Your task to perform on an android device: Clear all items from cart on newegg. Search for razer nari on newegg, select the first entry, and add it to the cart. Image 0: 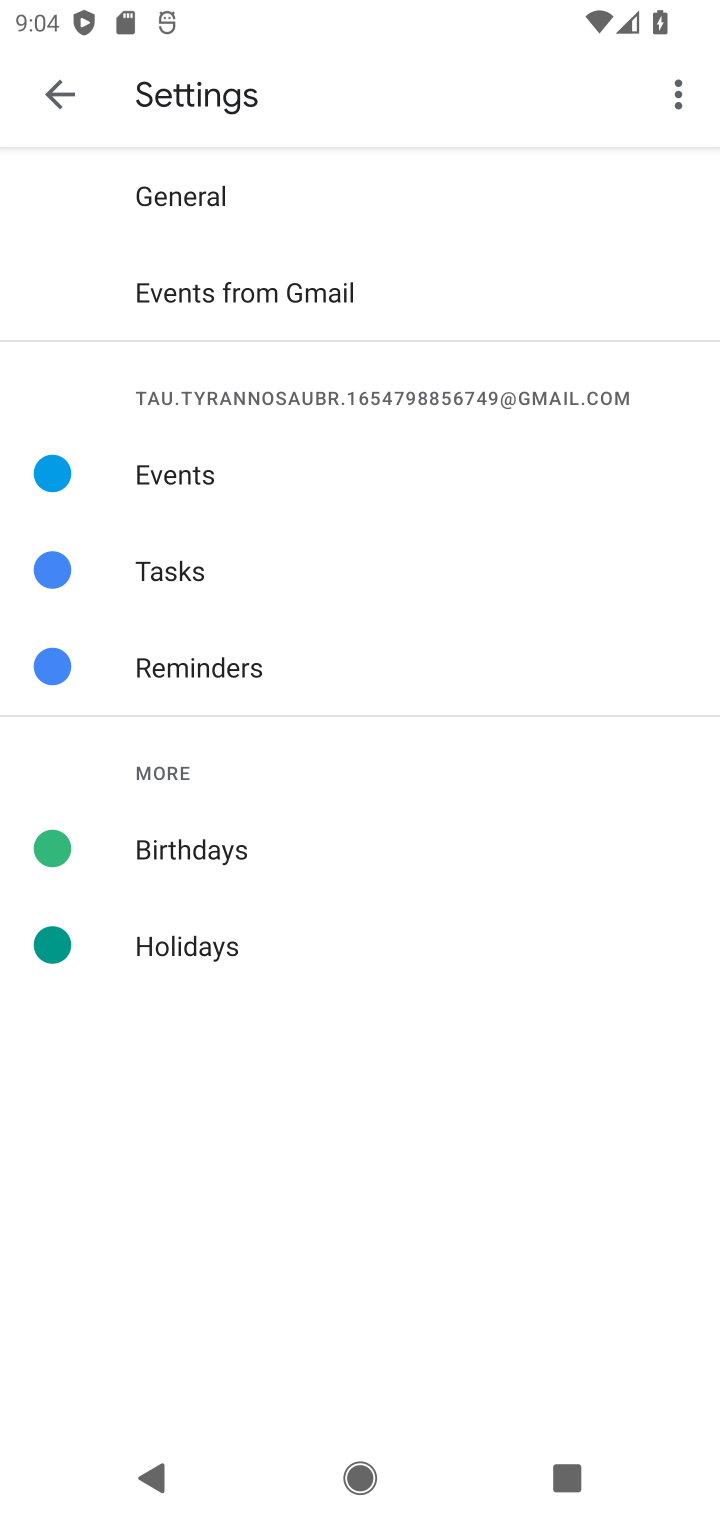
Step 0: press home button
Your task to perform on an android device: Clear all items from cart on newegg. Search for razer nari on newegg, select the first entry, and add it to the cart. Image 1: 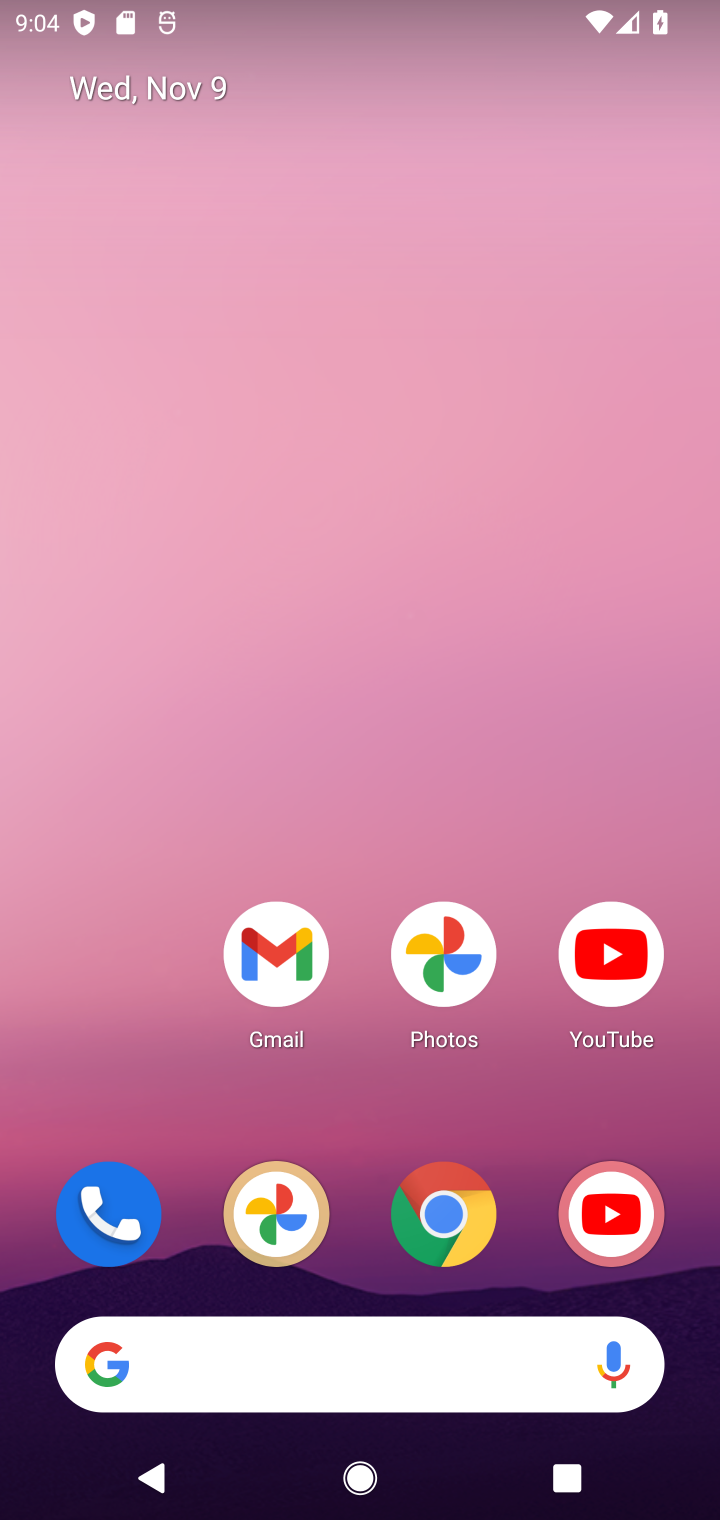
Step 1: drag from (373, 661) to (376, 215)
Your task to perform on an android device: Clear all items from cart on newegg. Search for razer nari on newegg, select the first entry, and add it to the cart. Image 2: 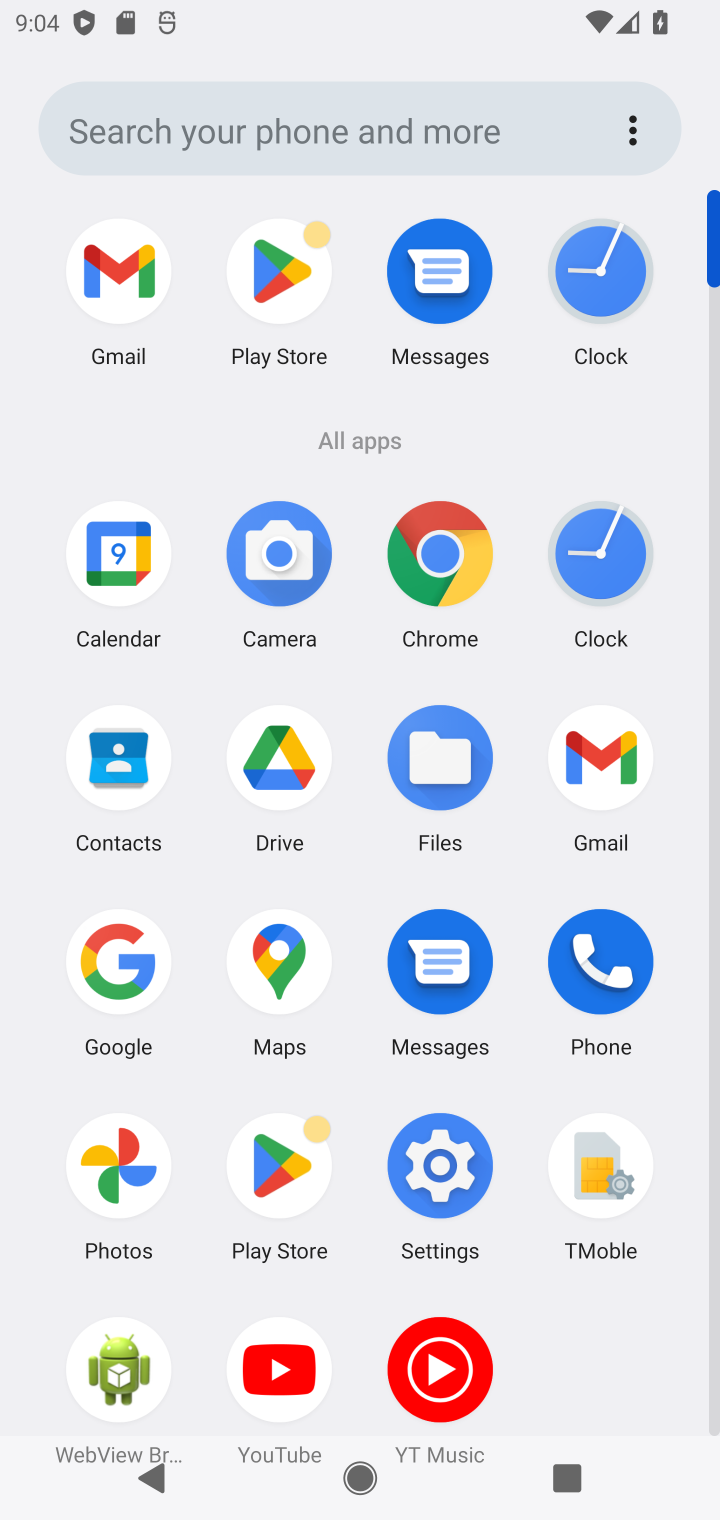
Step 2: click (435, 550)
Your task to perform on an android device: Clear all items from cart on newegg. Search for razer nari on newegg, select the first entry, and add it to the cart. Image 3: 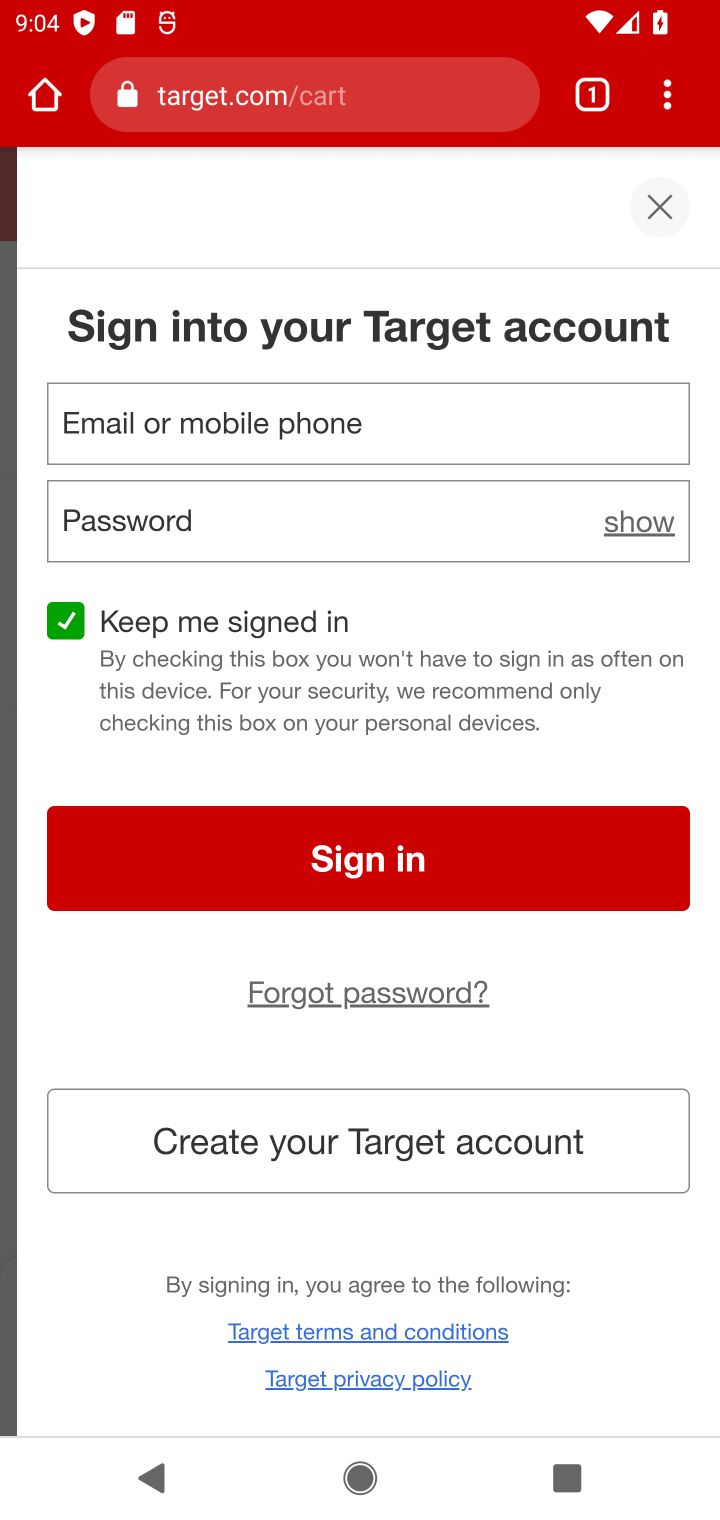
Step 3: click (337, 104)
Your task to perform on an android device: Clear all items from cart on newegg. Search for razer nari on newegg, select the first entry, and add it to the cart. Image 4: 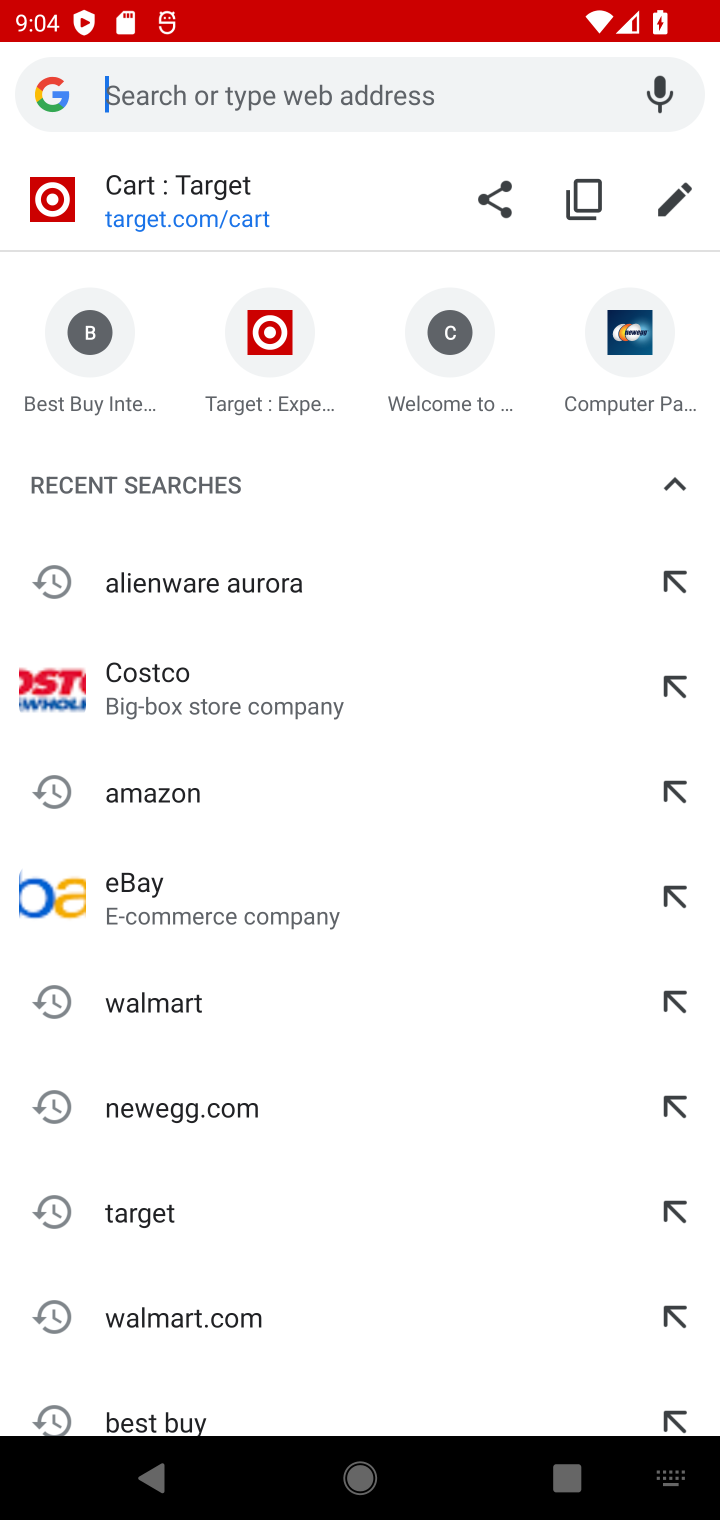
Step 4: type "newegg.com"
Your task to perform on an android device: Clear all items from cart on newegg. Search for razer nari on newegg, select the first entry, and add it to the cart. Image 5: 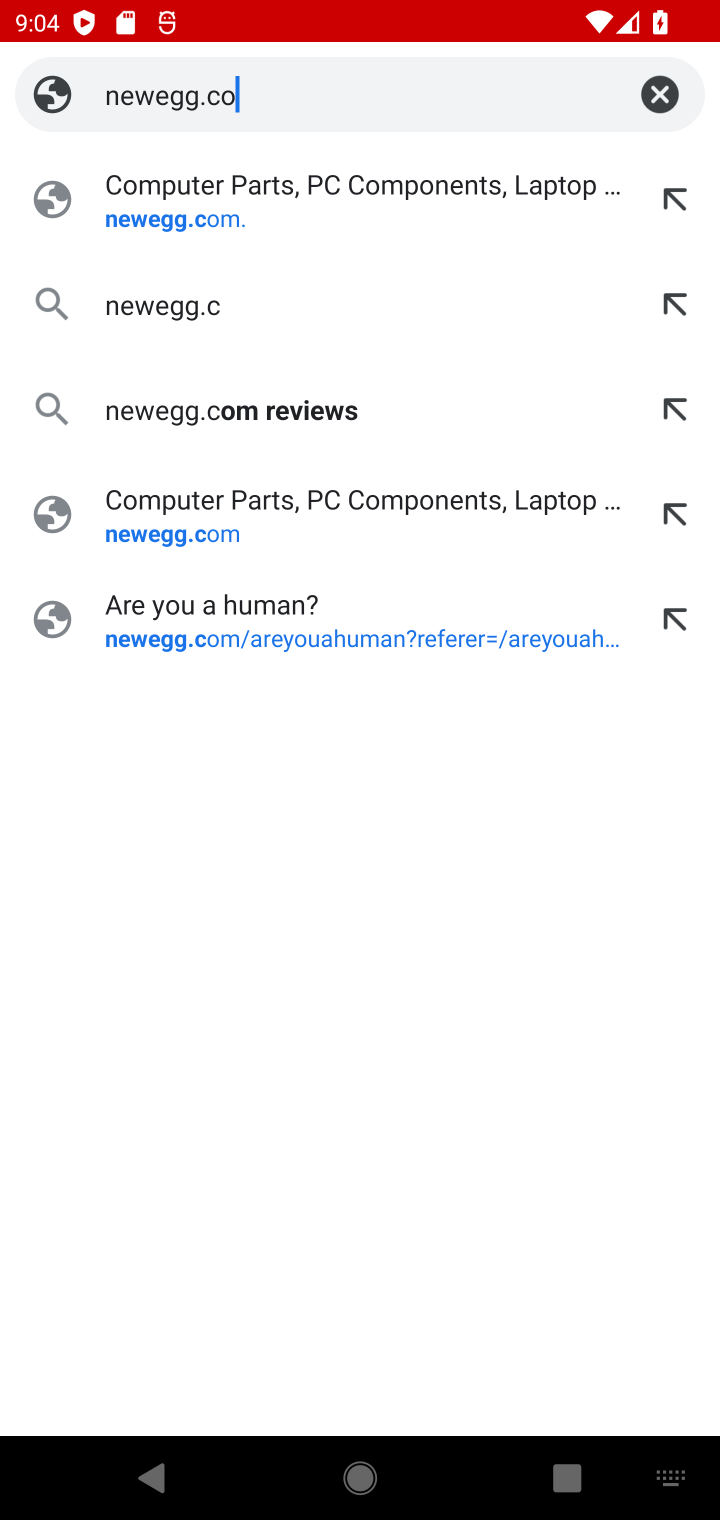
Step 5: press enter
Your task to perform on an android device: Clear all items from cart on newegg. Search for razer nari on newegg, select the first entry, and add it to the cart. Image 6: 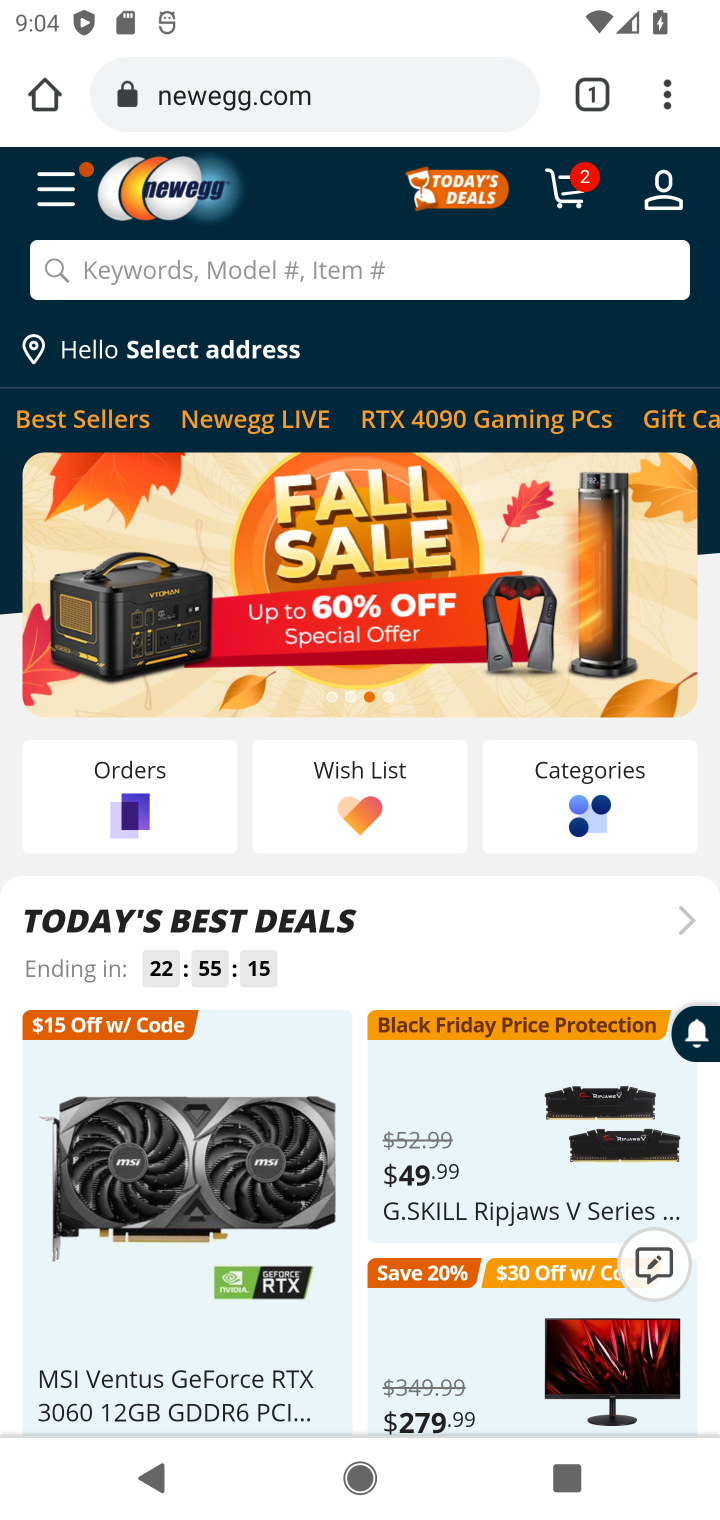
Step 6: click (593, 185)
Your task to perform on an android device: Clear all items from cart on newegg. Search for razer nari on newegg, select the first entry, and add it to the cart. Image 7: 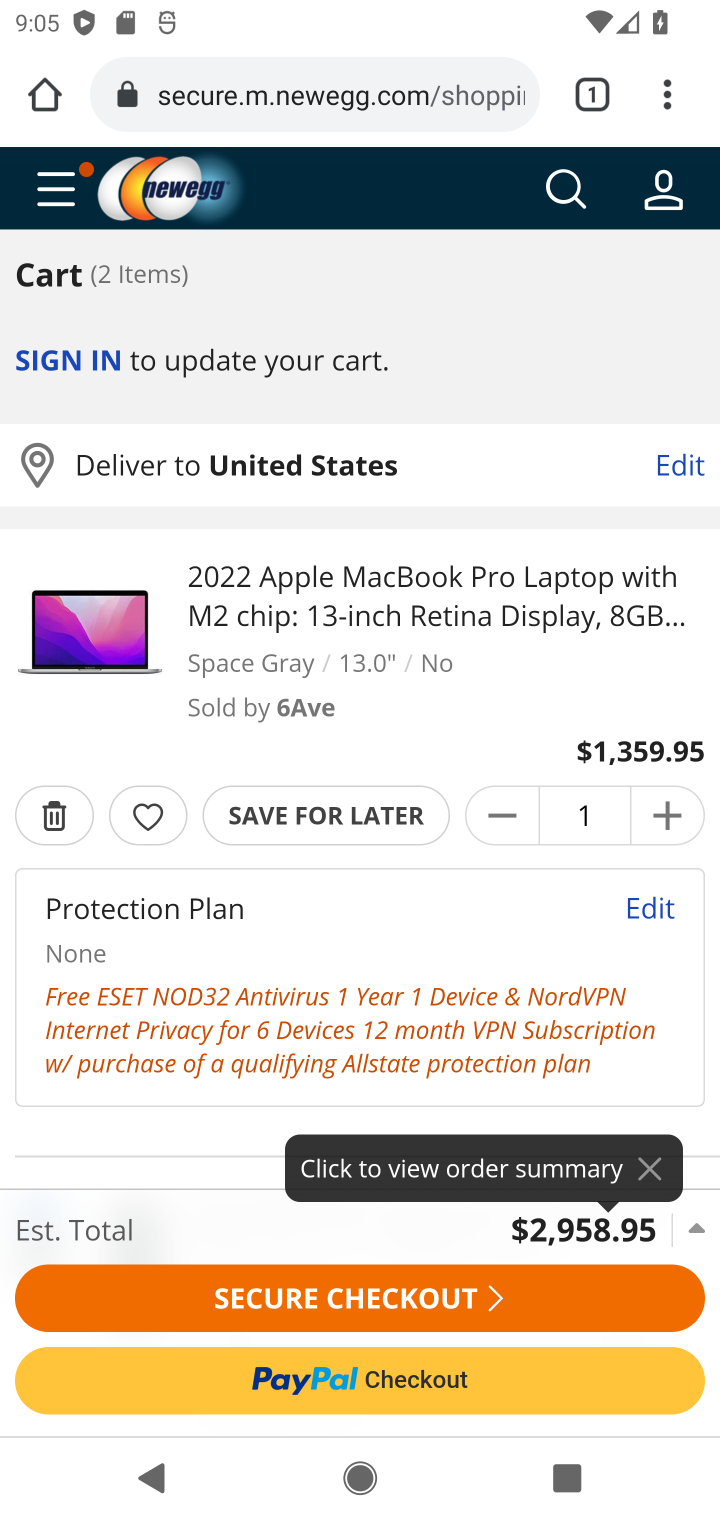
Step 7: click (38, 807)
Your task to perform on an android device: Clear all items from cart on newegg. Search for razer nari on newegg, select the first entry, and add it to the cart. Image 8: 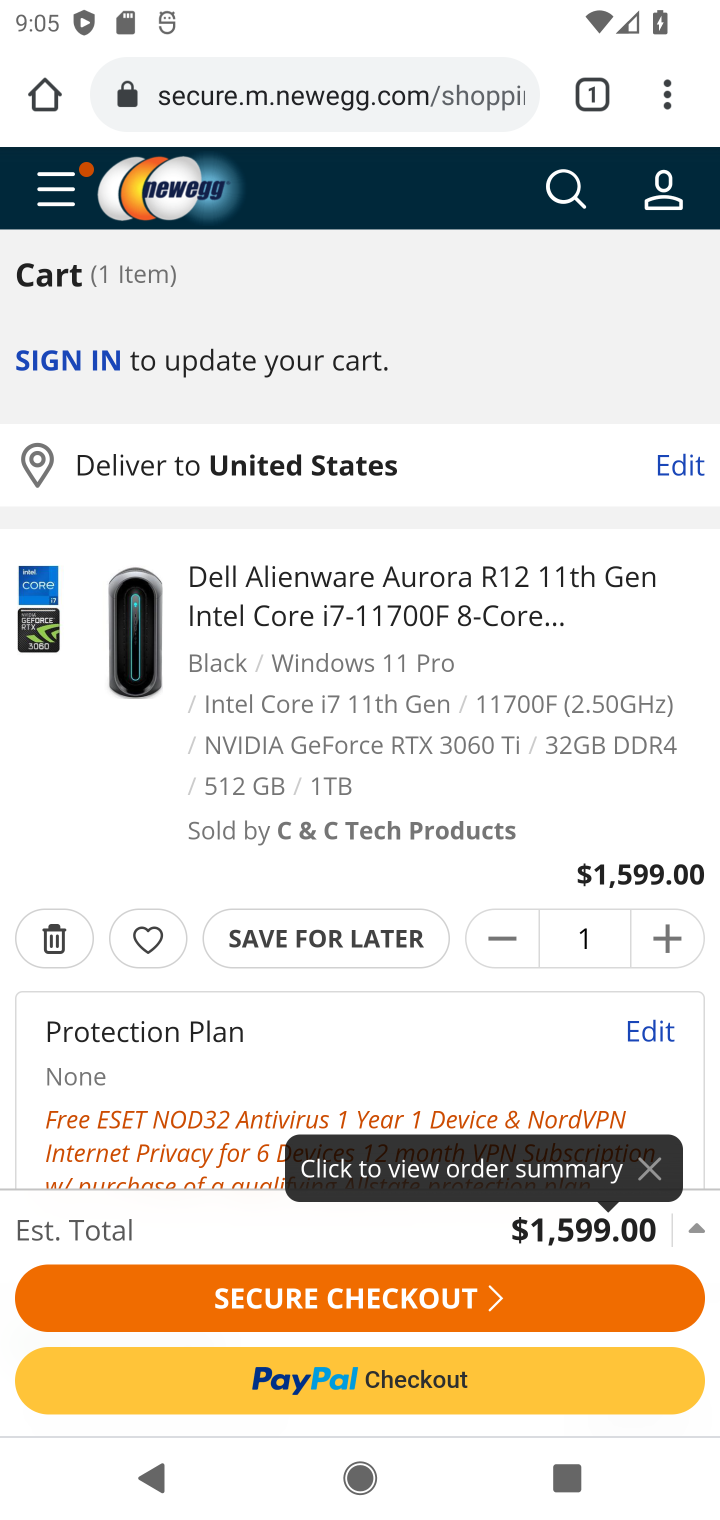
Step 8: click (62, 923)
Your task to perform on an android device: Clear all items from cart on newegg. Search for razer nari on newegg, select the first entry, and add it to the cart. Image 9: 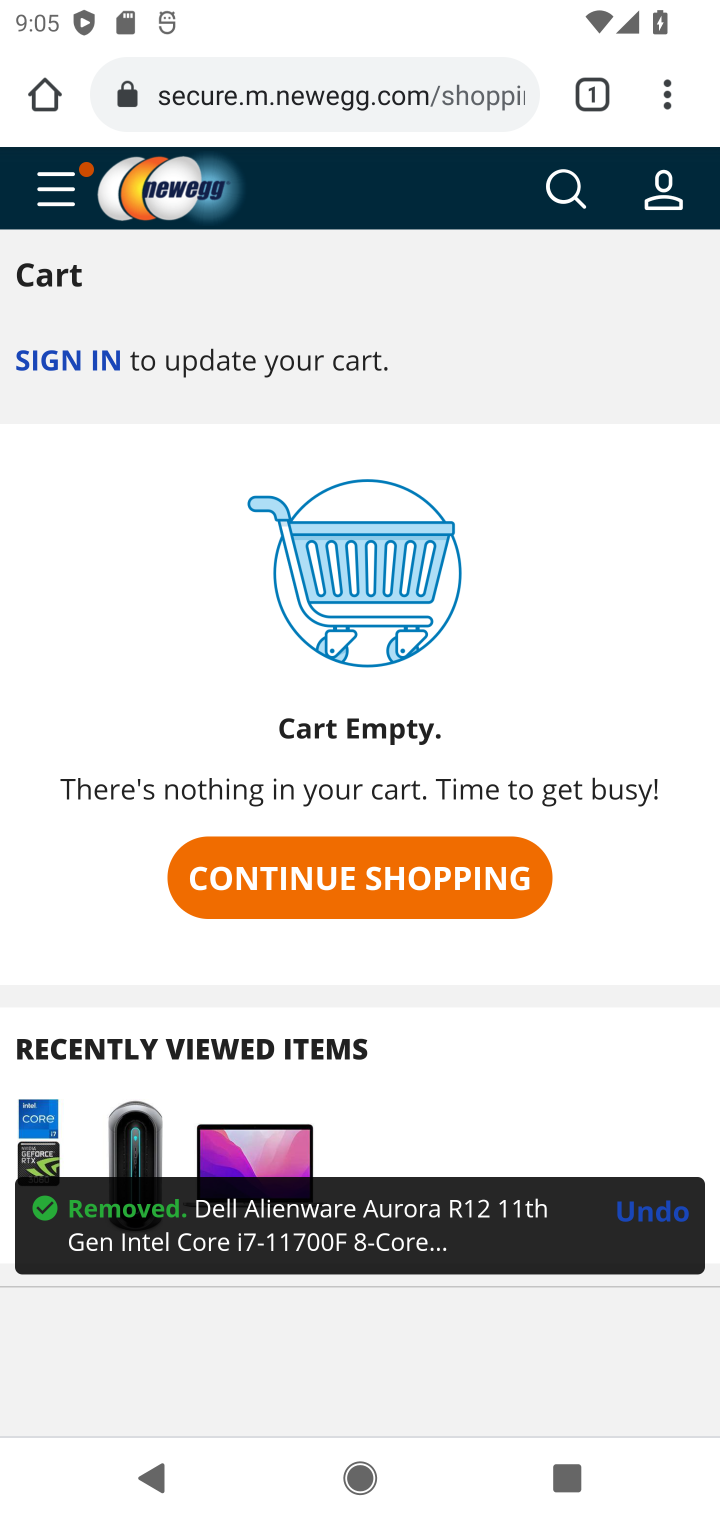
Step 9: click (558, 198)
Your task to perform on an android device: Clear all items from cart on newegg. Search for razer nari on newegg, select the first entry, and add it to the cart. Image 10: 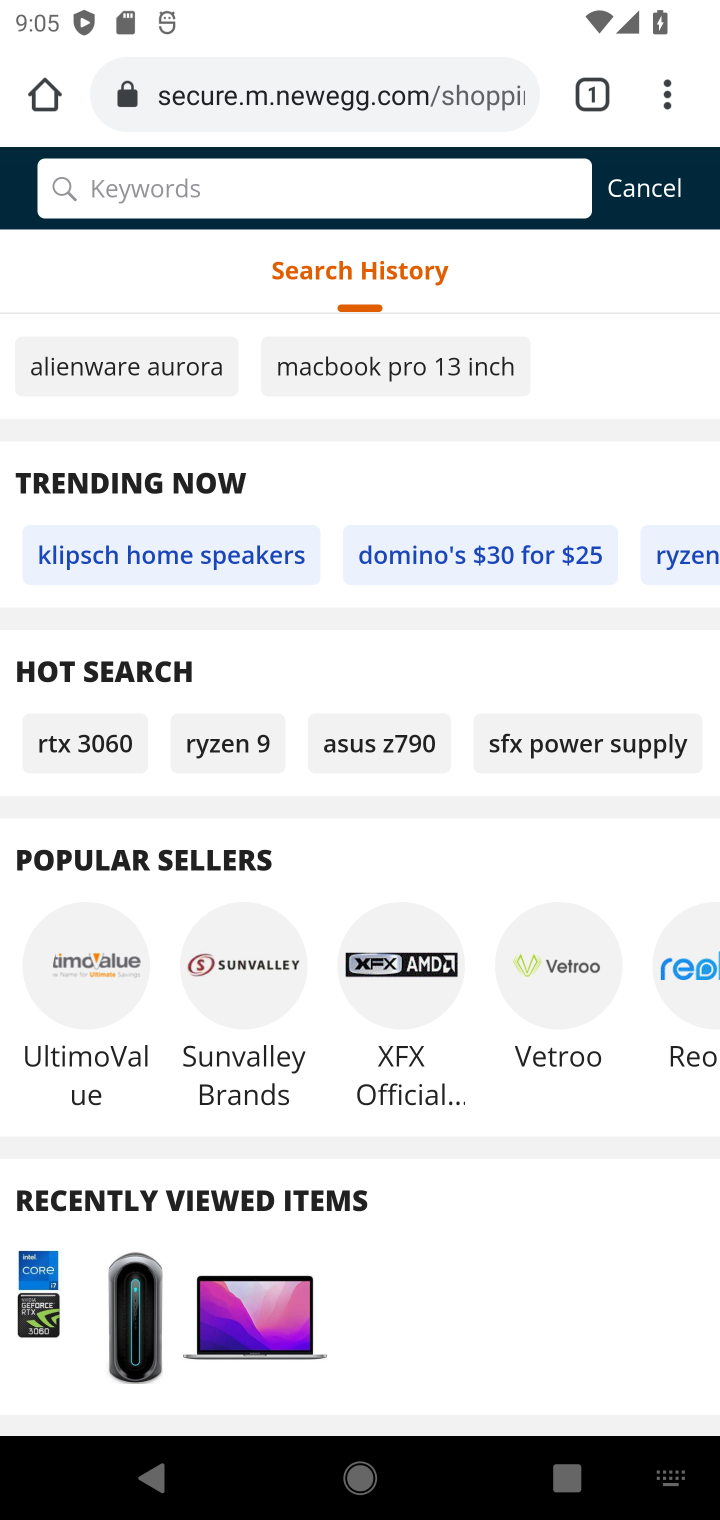
Step 10: type "razer nari"
Your task to perform on an android device: Clear all items from cart on newegg. Search for razer nari on newegg, select the first entry, and add it to the cart. Image 11: 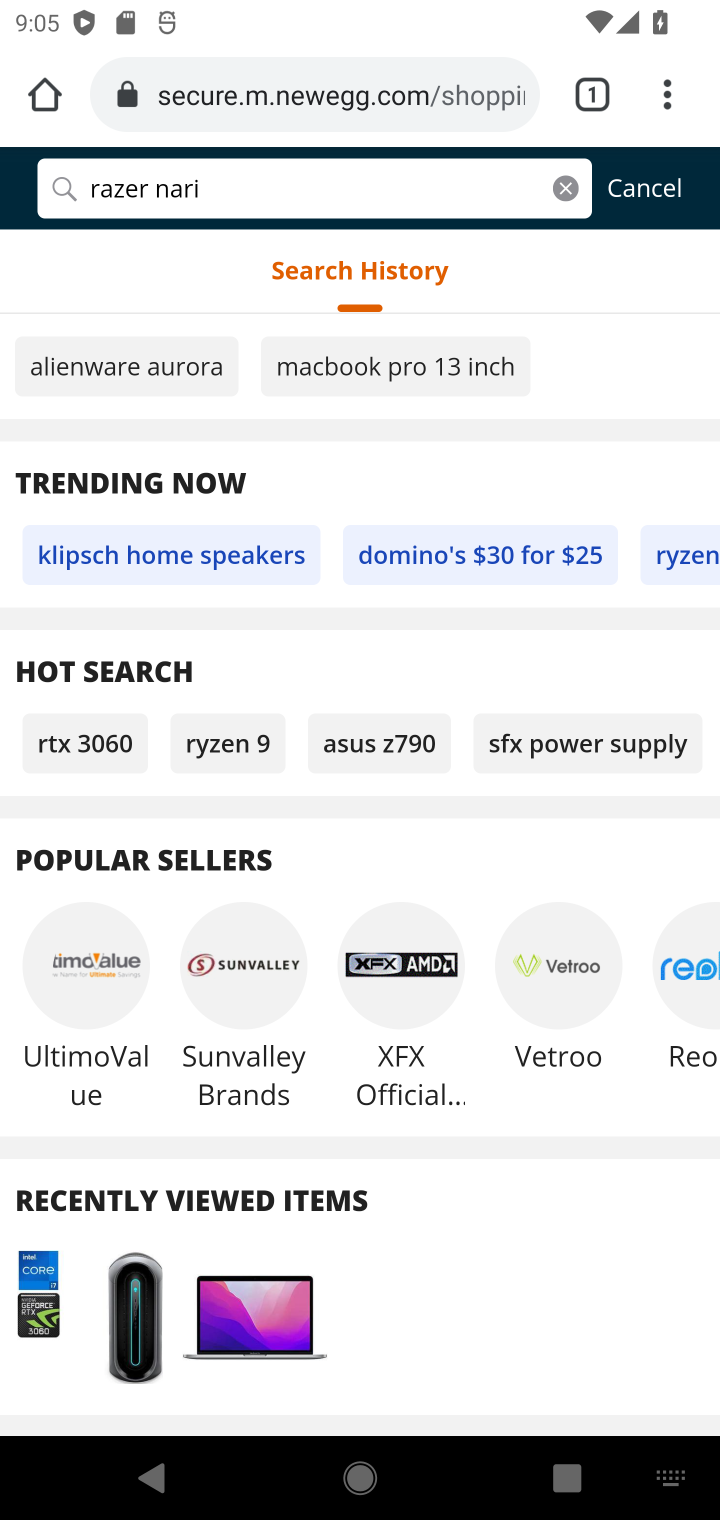
Step 11: press enter
Your task to perform on an android device: Clear all items from cart on newegg. Search for razer nari on newegg, select the first entry, and add it to the cart. Image 12: 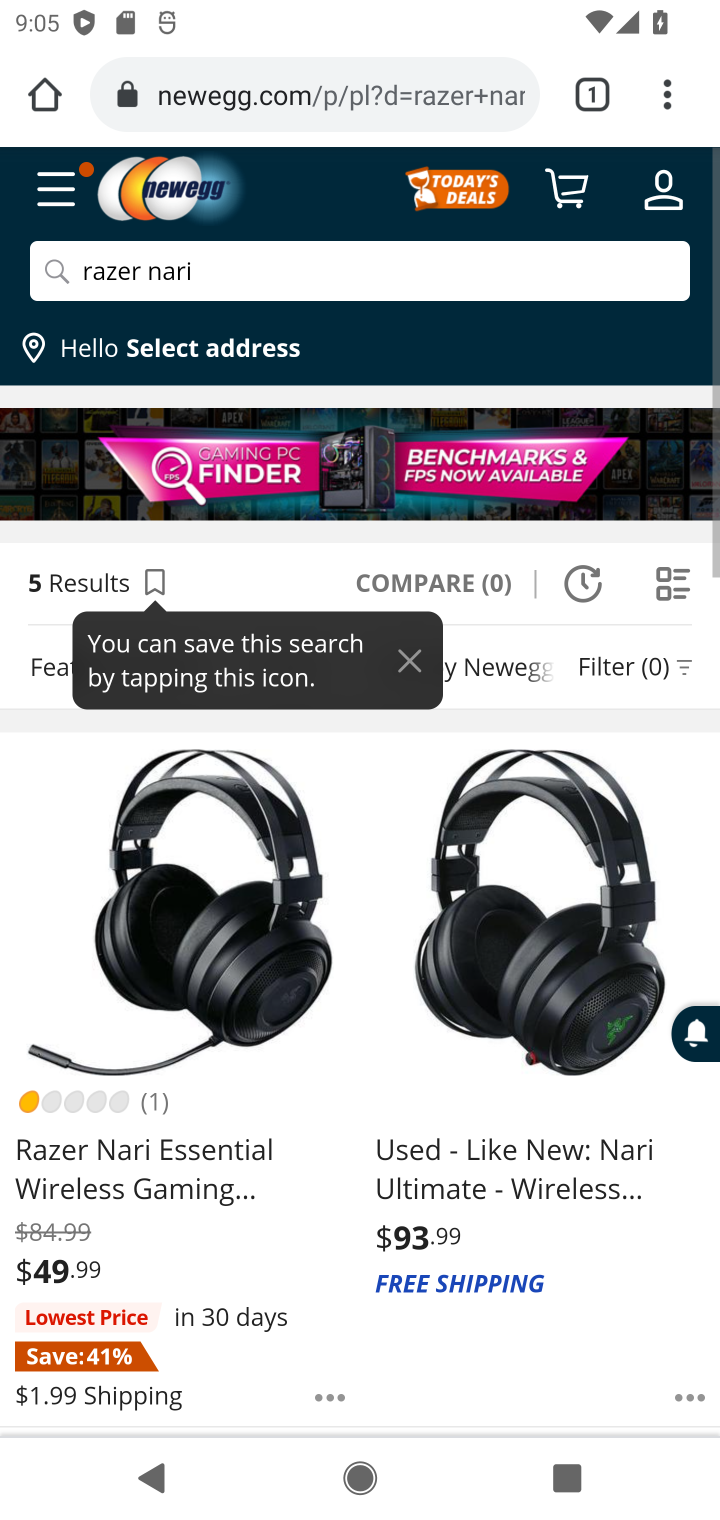
Step 12: click (205, 1182)
Your task to perform on an android device: Clear all items from cart on newegg. Search for razer nari on newegg, select the first entry, and add it to the cart. Image 13: 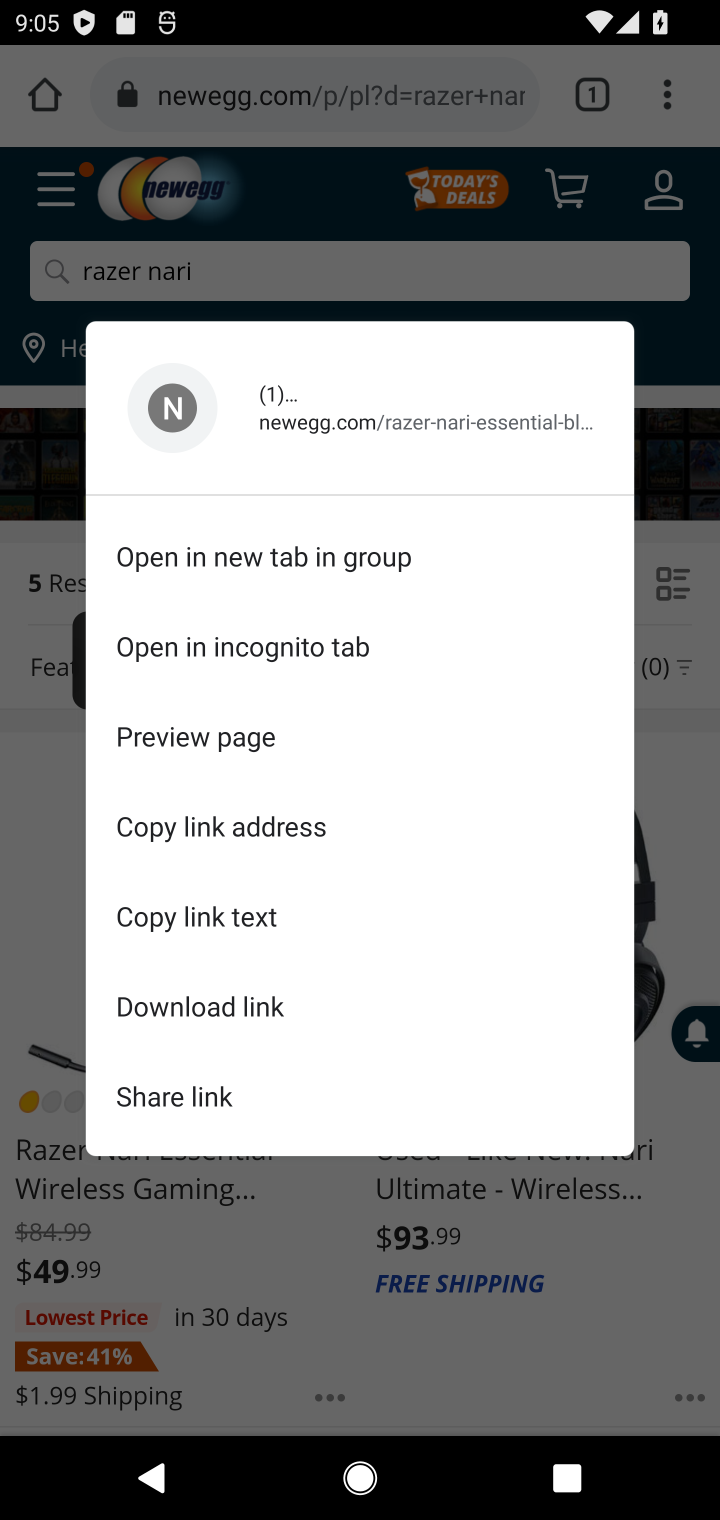
Step 13: click (100, 1207)
Your task to perform on an android device: Clear all items from cart on newegg. Search for razer nari on newegg, select the first entry, and add it to the cart. Image 14: 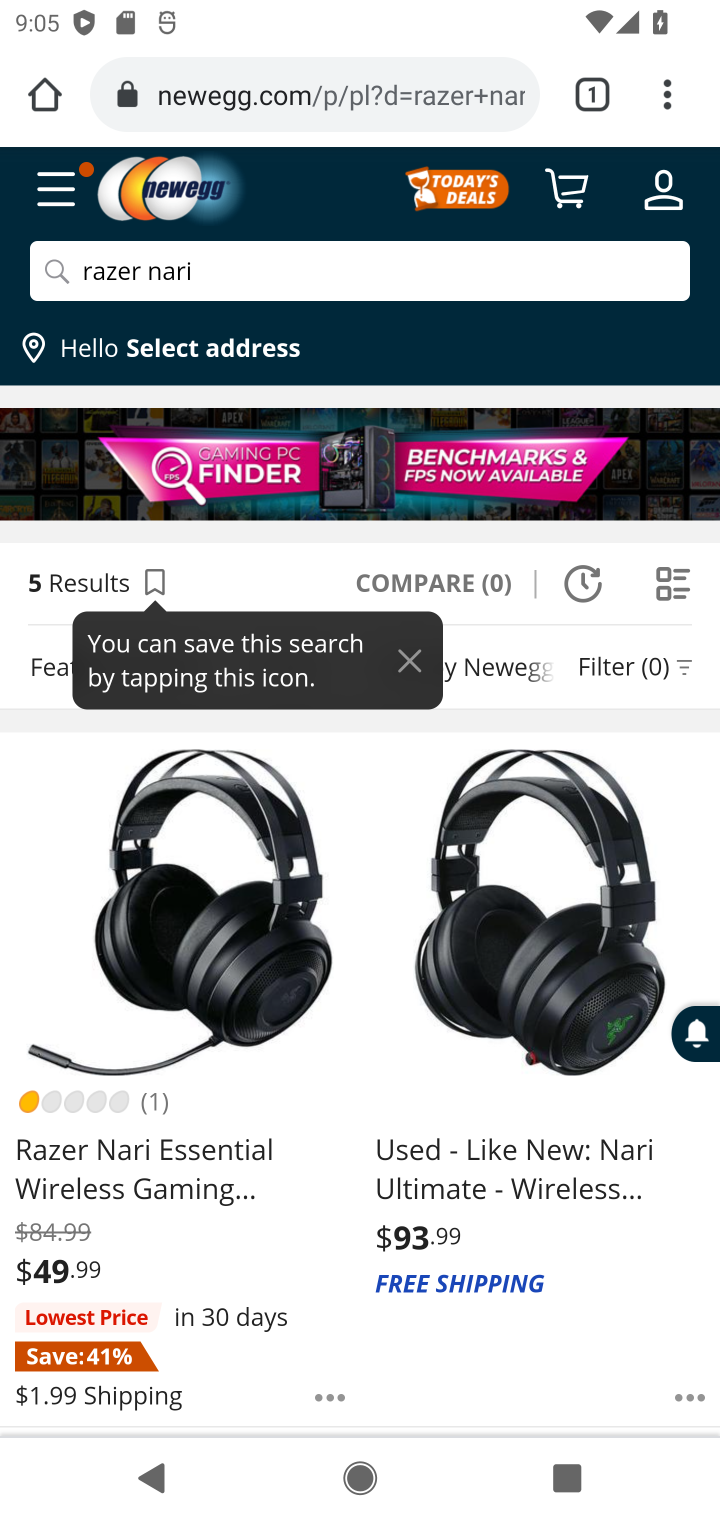
Step 14: click (100, 1207)
Your task to perform on an android device: Clear all items from cart on newegg. Search for razer nari on newegg, select the first entry, and add it to the cart. Image 15: 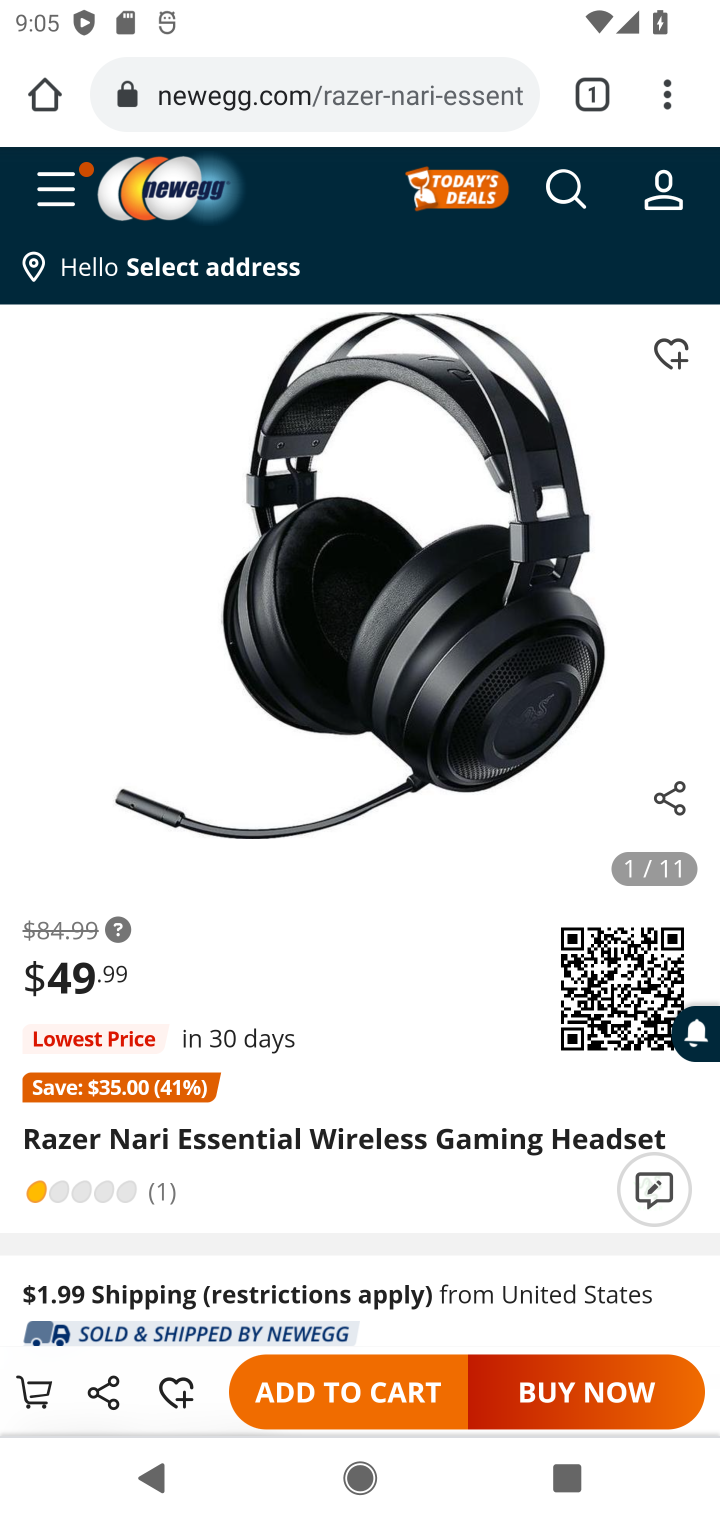
Step 15: click (300, 1370)
Your task to perform on an android device: Clear all items from cart on newegg. Search for razer nari on newegg, select the first entry, and add it to the cart. Image 16: 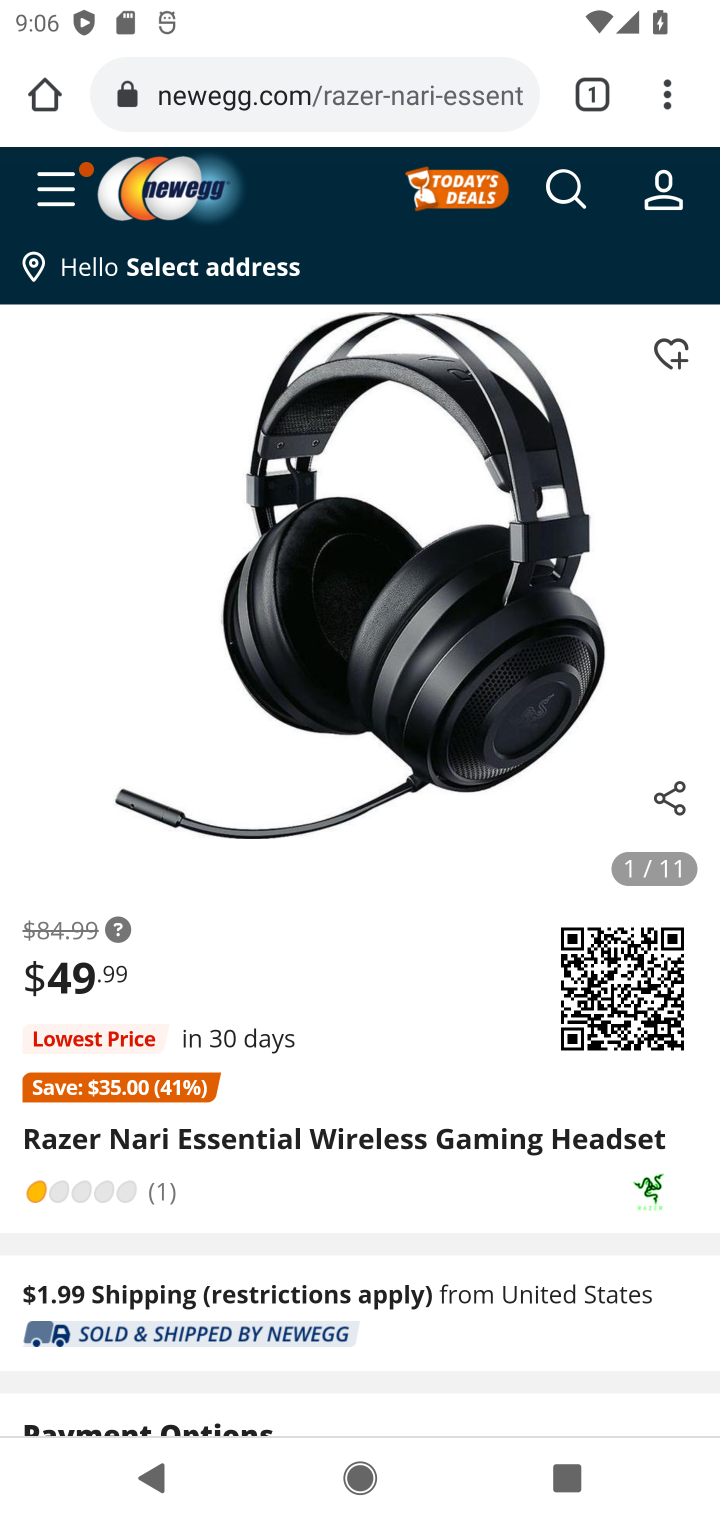
Step 16: click (359, 1400)
Your task to perform on an android device: Clear all items from cart on newegg. Search for razer nari on newegg, select the first entry, and add it to the cart. Image 17: 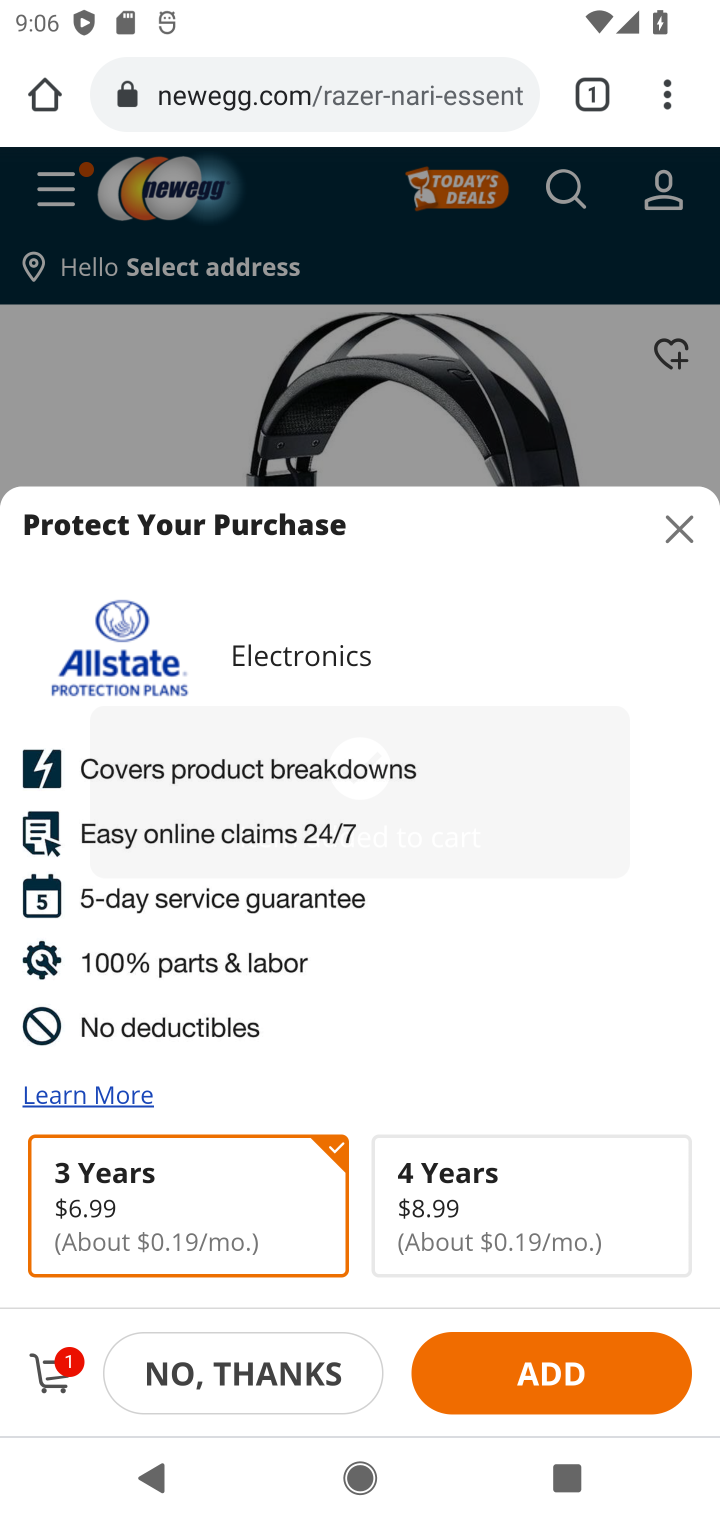
Step 17: task complete